Your task to perform on an android device: Go to internet settings Image 0: 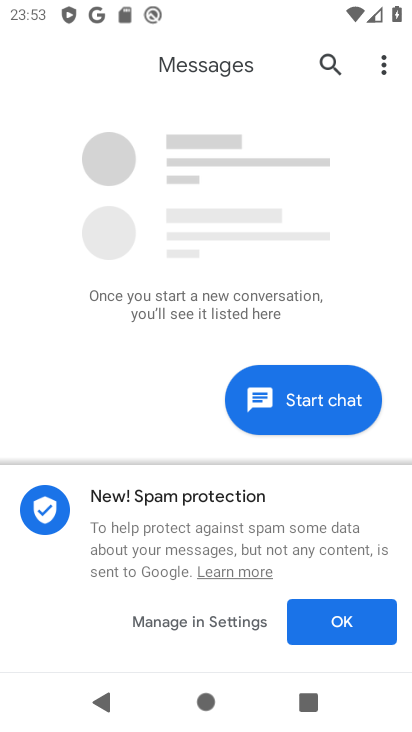
Step 0: press back button
Your task to perform on an android device: Go to internet settings Image 1: 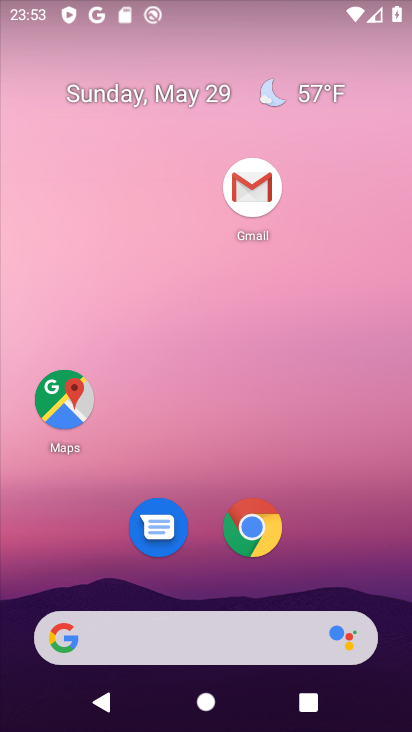
Step 1: drag from (327, 534) to (318, 93)
Your task to perform on an android device: Go to internet settings Image 2: 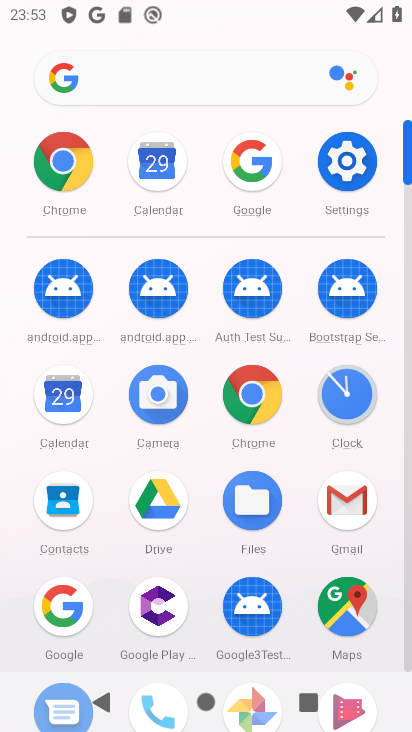
Step 2: click (345, 164)
Your task to perform on an android device: Go to internet settings Image 3: 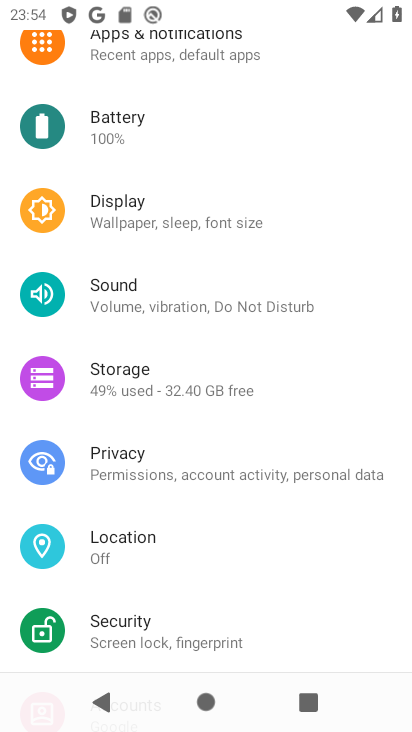
Step 3: drag from (244, 208) to (217, 313)
Your task to perform on an android device: Go to internet settings Image 4: 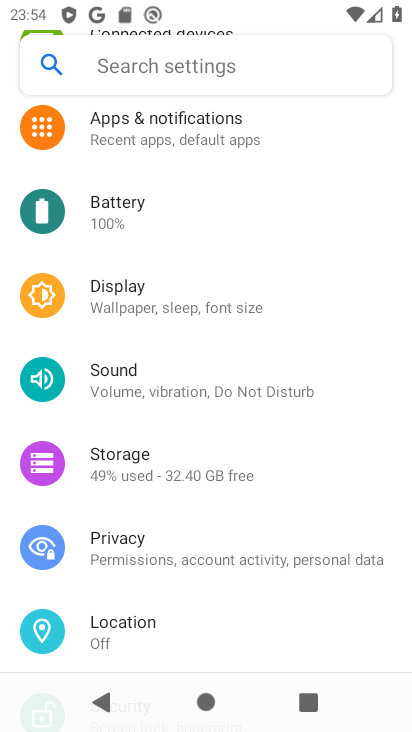
Step 4: drag from (224, 182) to (207, 311)
Your task to perform on an android device: Go to internet settings Image 5: 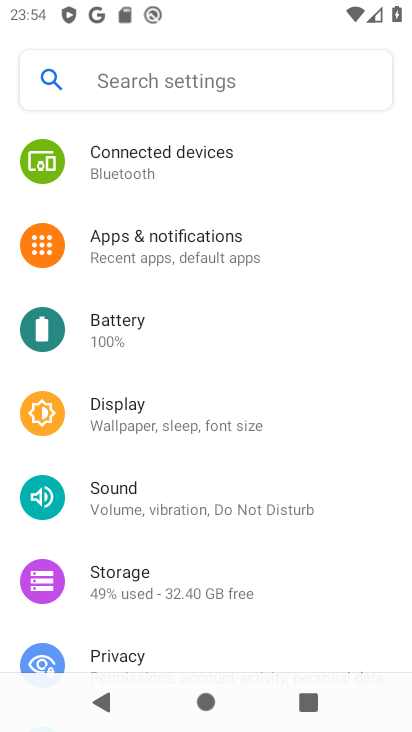
Step 5: drag from (233, 173) to (208, 286)
Your task to perform on an android device: Go to internet settings Image 6: 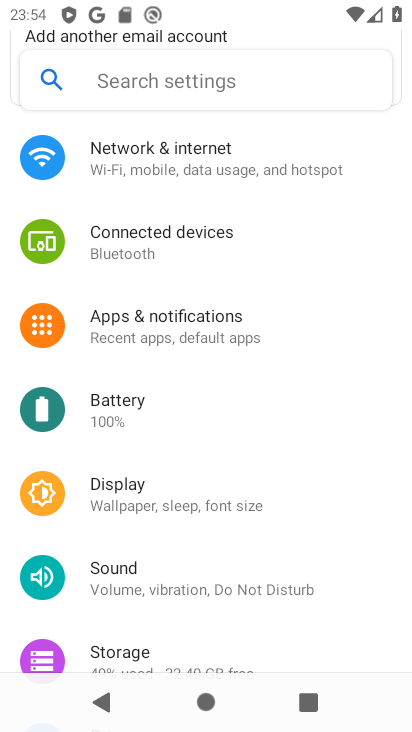
Step 6: click (209, 159)
Your task to perform on an android device: Go to internet settings Image 7: 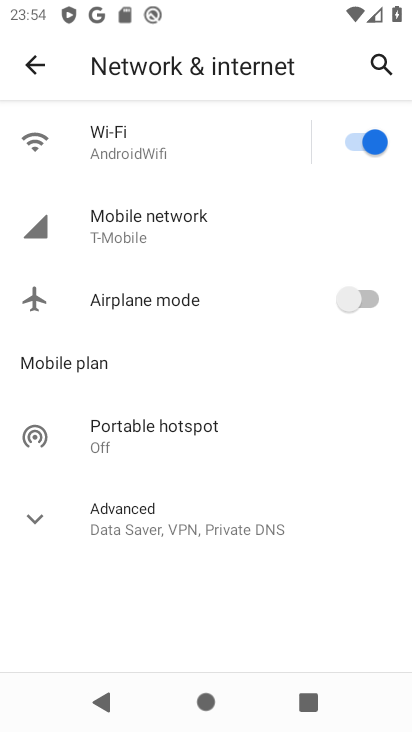
Step 7: task complete